Your task to perform on an android device: Go to sound settings Image 0: 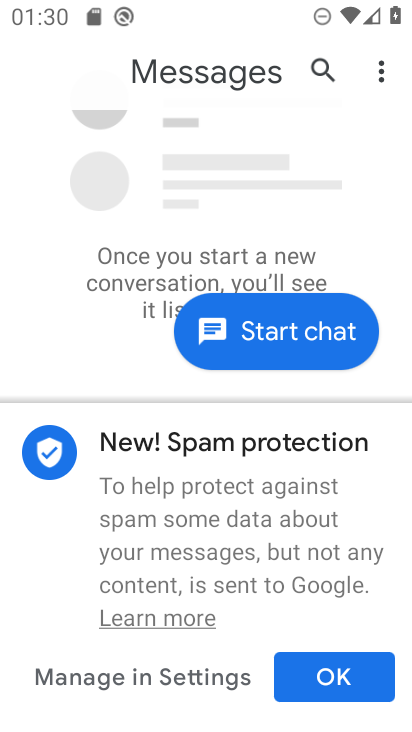
Step 0: press home button
Your task to perform on an android device: Go to sound settings Image 1: 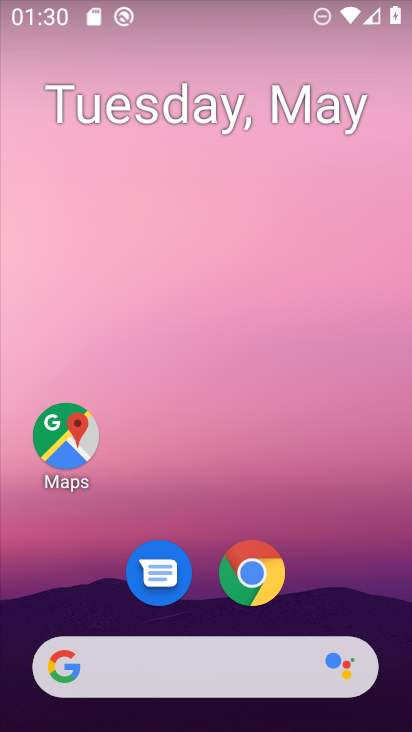
Step 1: drag from (319, 471) to (215, 61)
Your task to perform on an android device: Go to sound settings Image 2: 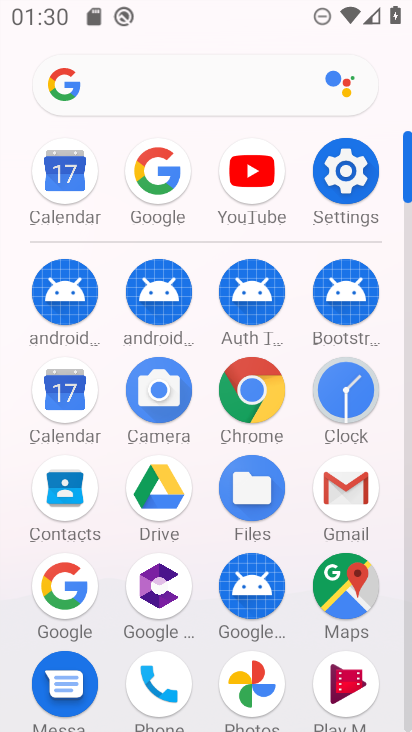
Step 2: click (354, 177)
Your task to perform on an android device: Go to sound settings Image 3: 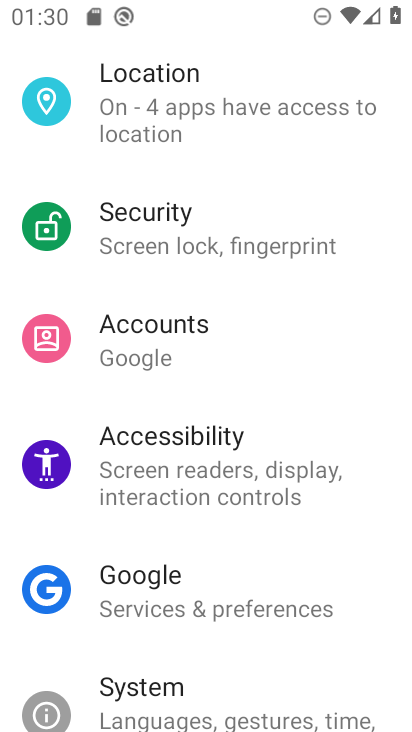
Step 3: drag from (261, 393) to (267, 725)
Your task to perform on an android device: Go to sound settings Image 4: 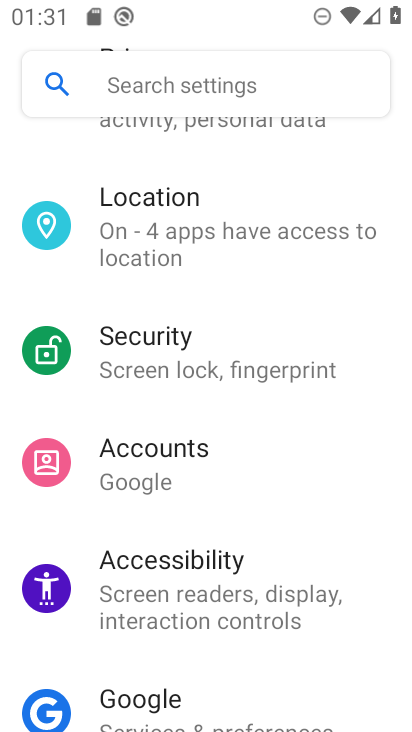
Step 4: drag from (235, 234) to (239, 703)
Your task to perform on an android device: Go to sound settings Image 5: 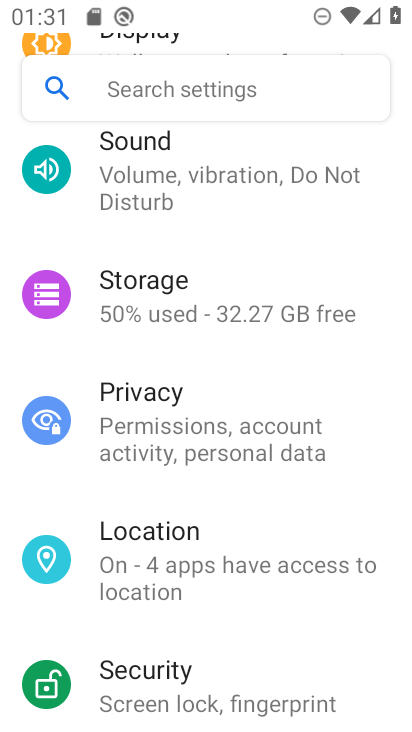
Step 5: click (216, 179)
Your task to perform on an android device: Go to sound settings Image 6: 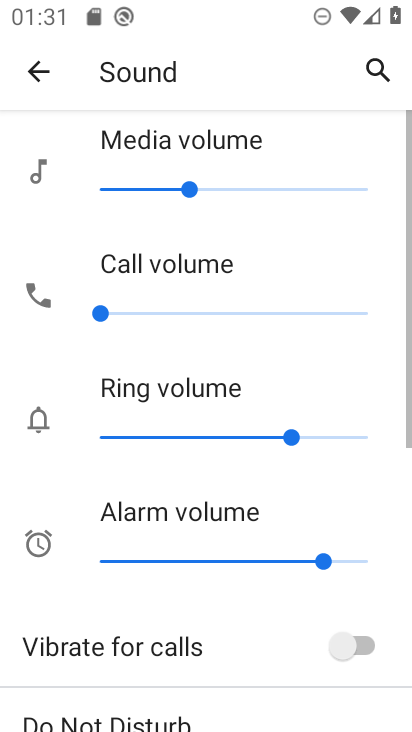
Step 6: task complete